Your task to perform on an android device: turn on improve location accuracy Image 0: 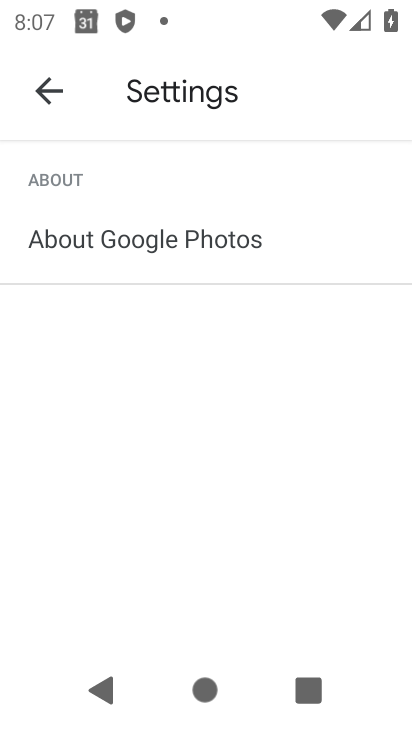
Step 0: press back button
Your task to perform on an android device: turn on improve location accuracy Image 1: 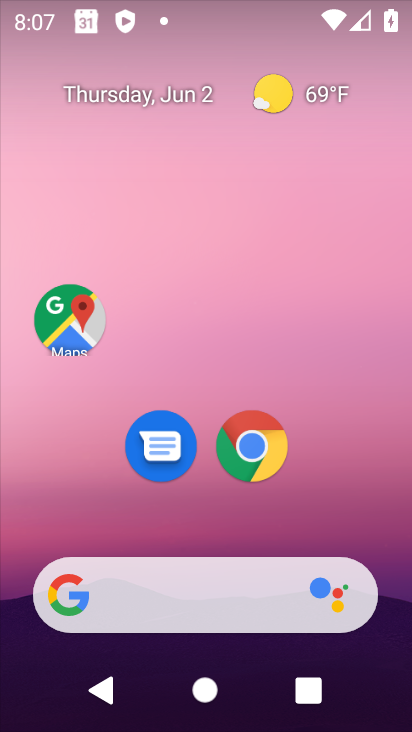
Step 1: drag from (203, 513) to (261, 53)
Your task to perform on an android device: turn on improve location accuracy Image 2: 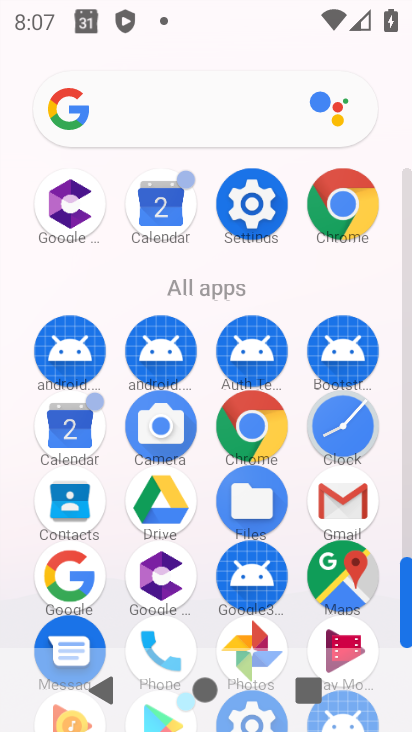
Step 2: click (251, 199)
Your task to perform on an android device: turn on improve location accuracy Image 3: 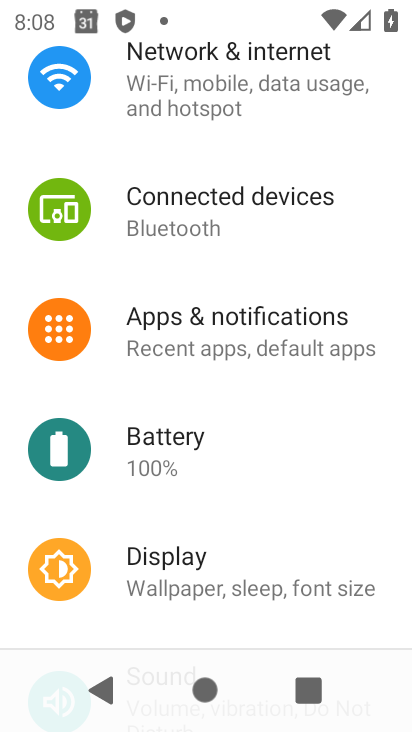
Step 3: drag from (165, 618) to (262, 75)
Your task to perform on an android device: turn on improve location accuracy Image 4: 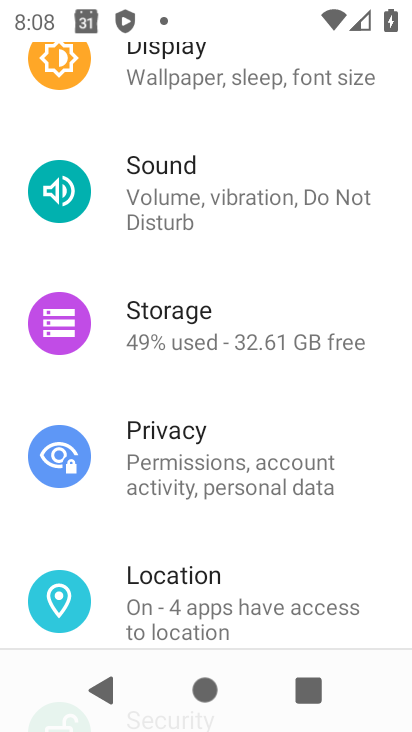
Step 4: click (179, 593)
Your task to perform on an android device: turn on improve location accuracy Image 5: 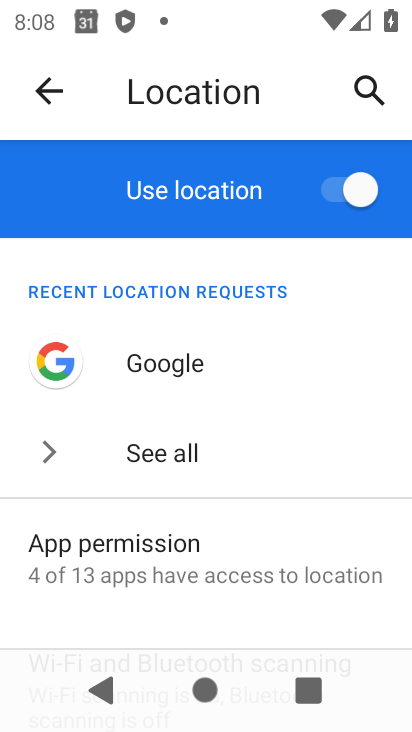
Step 5: drag from (200, 618) to (200, 250)
Your task to perform on an android device: turn on improve location accuracy Image 6: 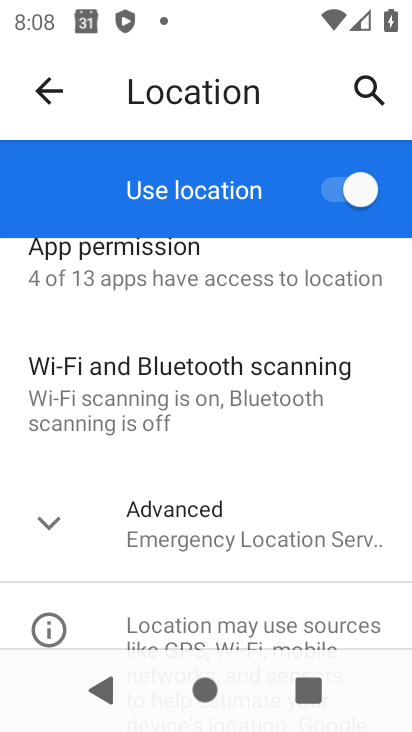
Step 6: click (148, 525)
Your task to perform on an android device: turn on improve location accuracy Image 7: 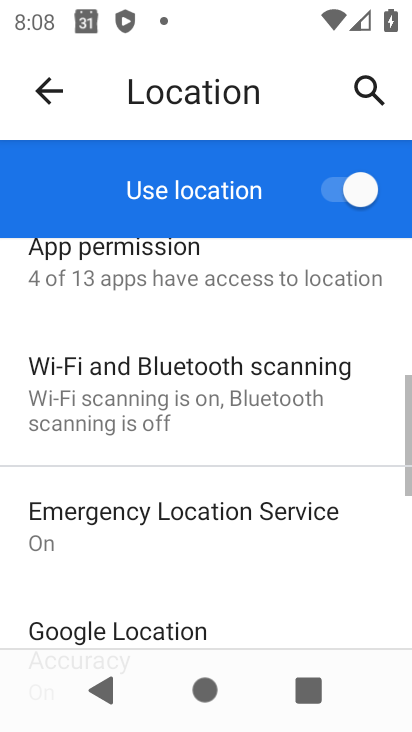
Step 7: drag from (101, 590) to (232, 299)
Your task to perform on an android device: turn on improve location accuracy Image 8: 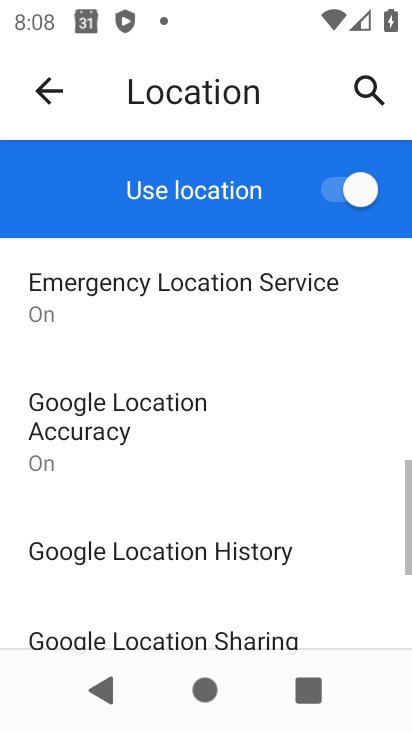
Step 8: drag from (203, 367) to (294, 716)
Your task to perform on an android device: turn on improve location accuracy Image 9: 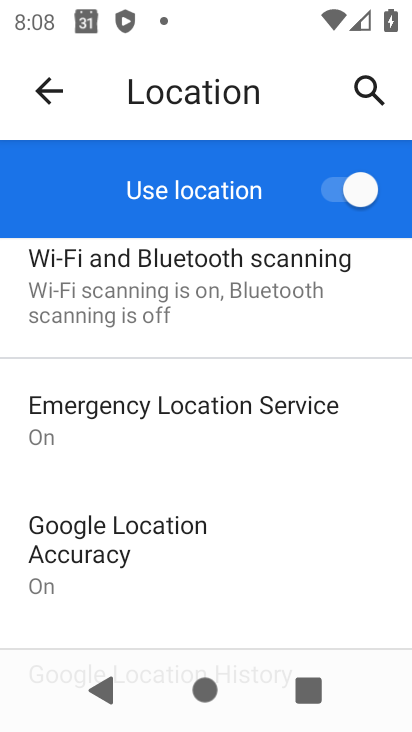
Step 9: click (105, 506)
Your task to perform on an android device: turn on improve location accuracy Image 10: 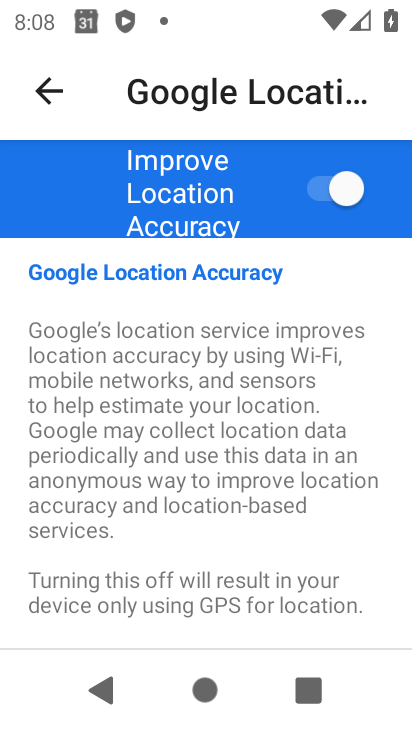
Step 10: task complete